Your task to perform on an android device: Open Chrome and go to settings Image 0: 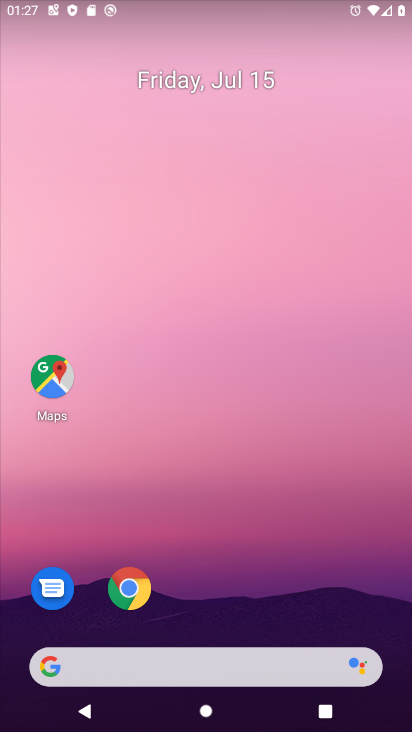
Step 0: click (128, 586)
Your task to perform on an android device: Open Chrome and go to settings Image 1: 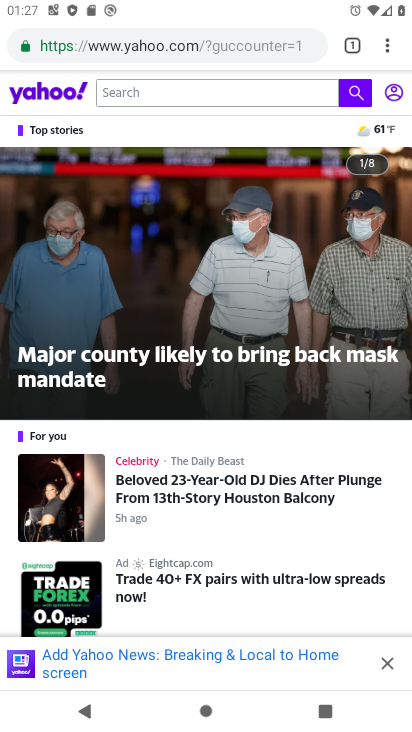
Step 1: click (389, 48)
Your task to perform on an android device: Open Chrome and go to settings Image 2: 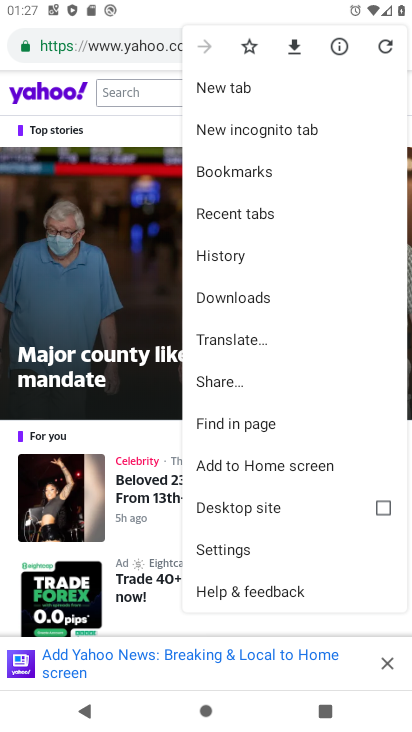
Step 2: click (215, 554)
Your task to perform on an android device: Open Chrome and go to settings Image 3: 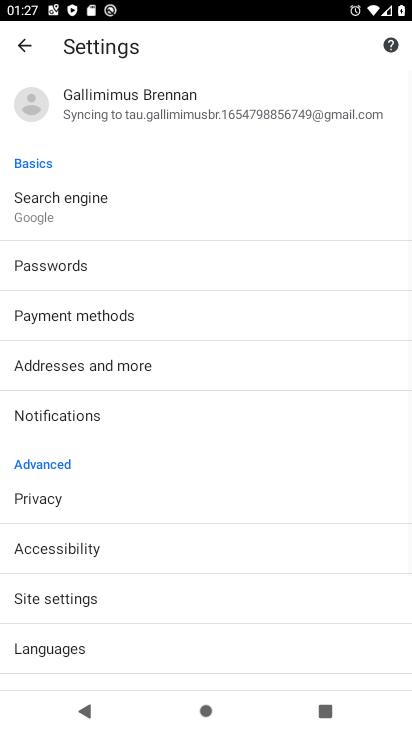
Step 3: task complete